Your task to perform on an android device: Open Google Chrome Image 0: 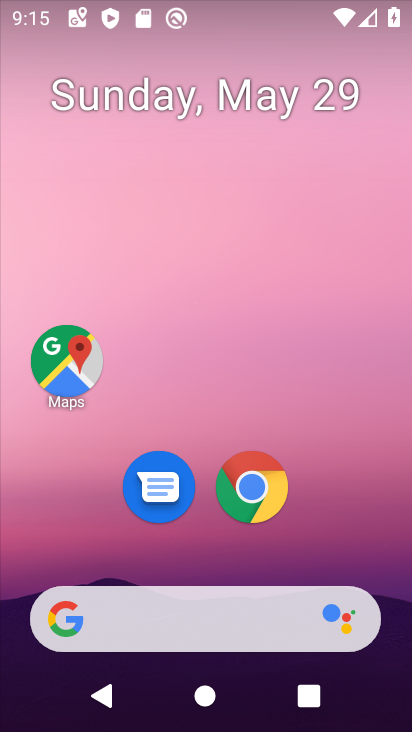
Step 0: click (259, 483)
Your task to perform on an android device: Open Google Chrome Image 1: 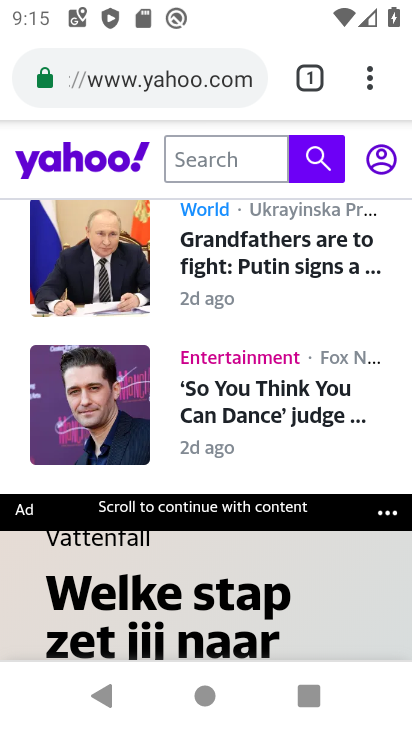
Step 1: task complete